Your task to perform on an android device: check the backup settings in the google photos Image 0: 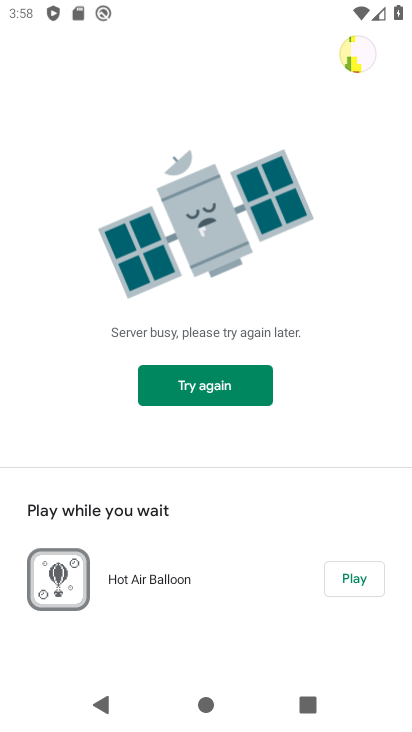
Step 0: press home button
Your task to perform on an android device: check the backup settings in the google photos Image 1: 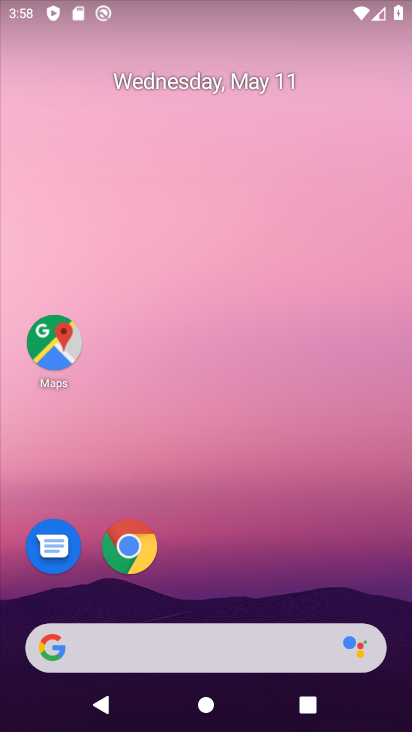
Step 1: drag from (184, 617) to (164, 307)
Your task to perform on an android device: check the backup settings in the google photos Image 2: 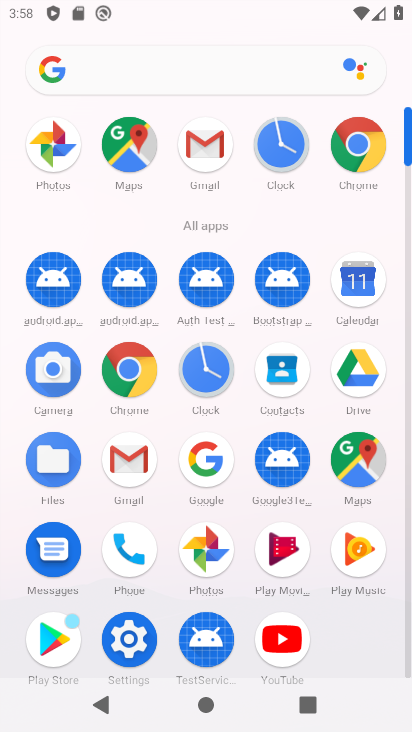
Step 2: click (219, 555)
Your task to perform on an android device: check the backup settings in the google photos Image 3: 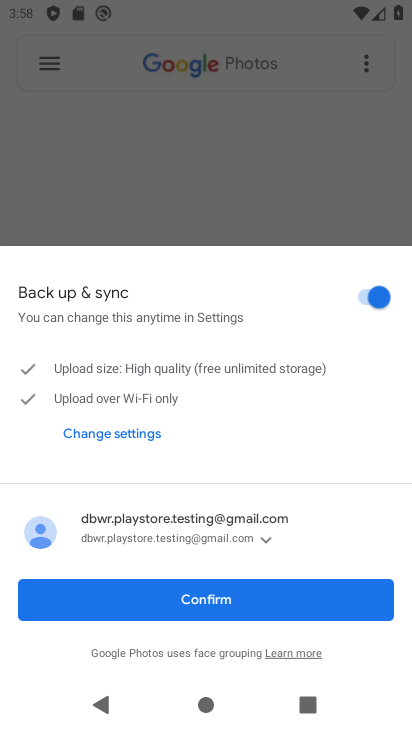
Step 3: click (213, 603)
Your task to perform on an android device: check the backup settings in the google photos Image 4: 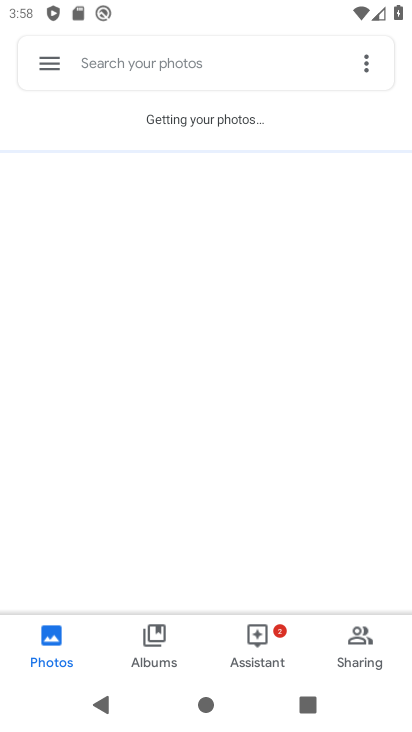
Step 4: click (56, 64)
Your task to perform on an android device: check the backup settings in the google photos Image 5: 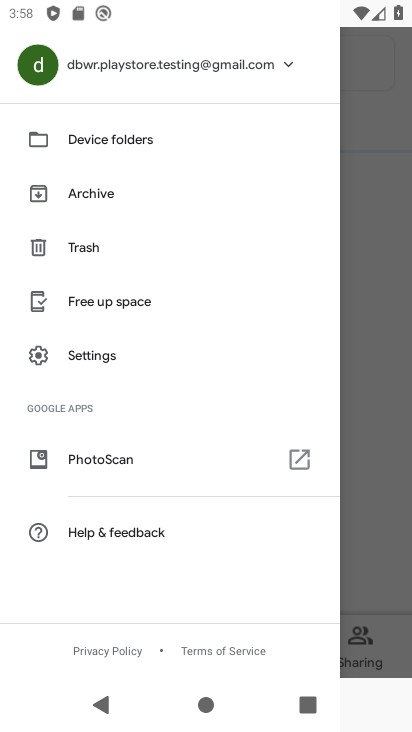
Step 5: click (91, 363)
Your task to perform on an android device: check the backup settings in the google photos Image 6: 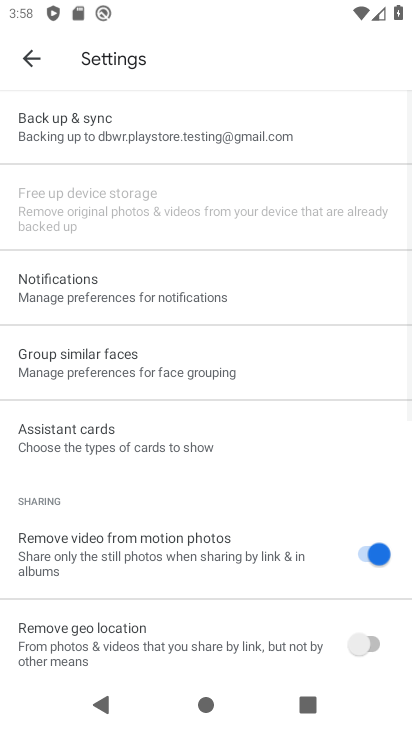
Step 6: click (95, 132)
Your task to perform on an android device: check the backup settings in the google photos Image 7: 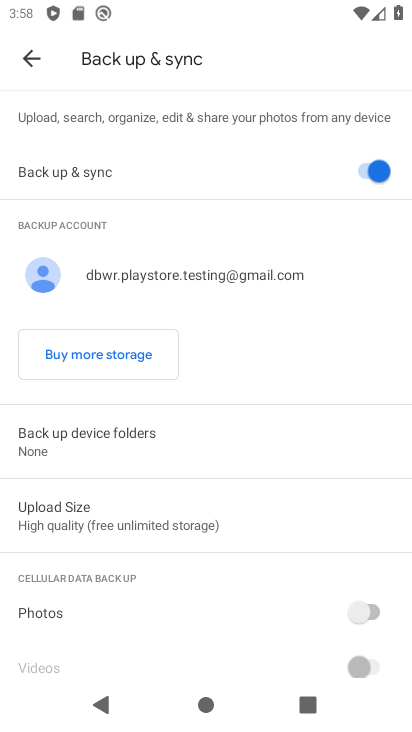
Step 7: task complete